Your task to perform on an android device: turn pop-ups off in chrome Image 0: 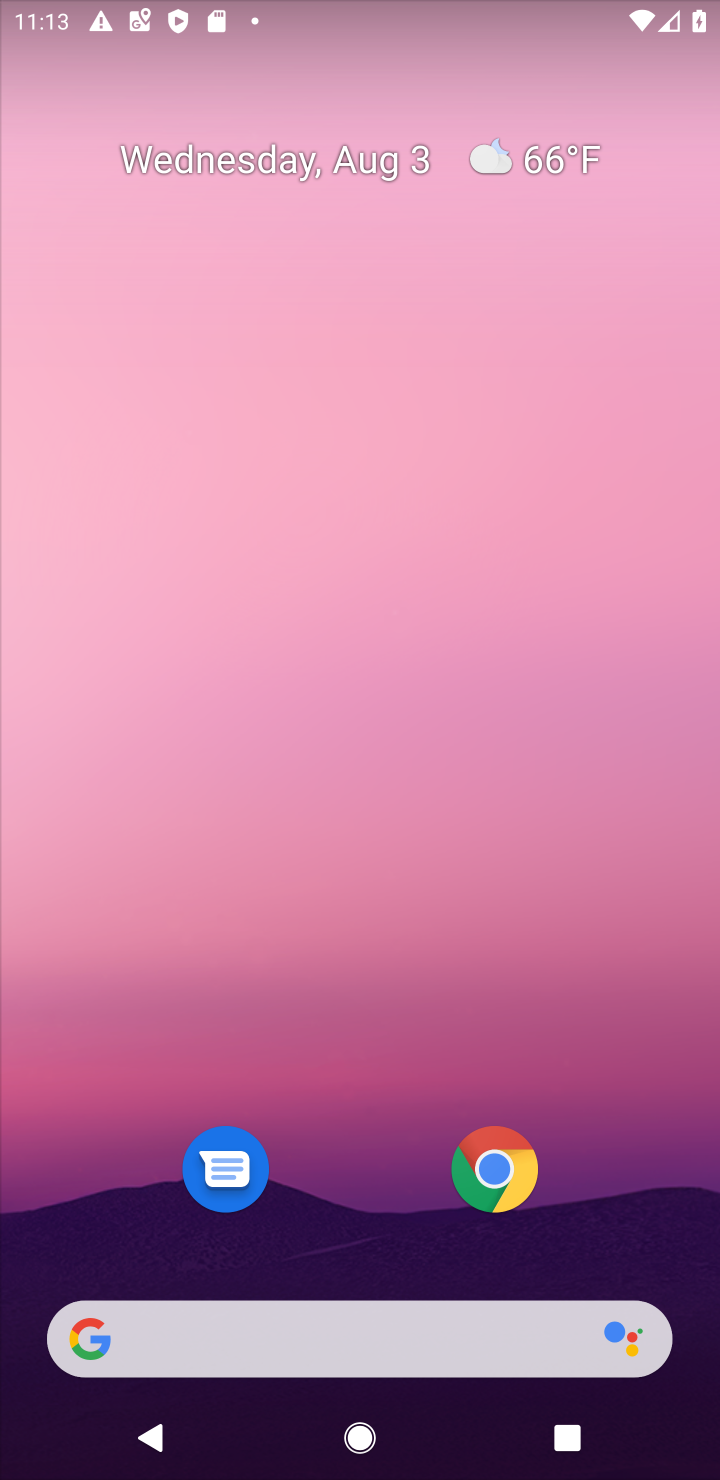
Step 0: click (508, 1188)
Your task to perform on an android device: turn pop-ups off in chrome Image 1: 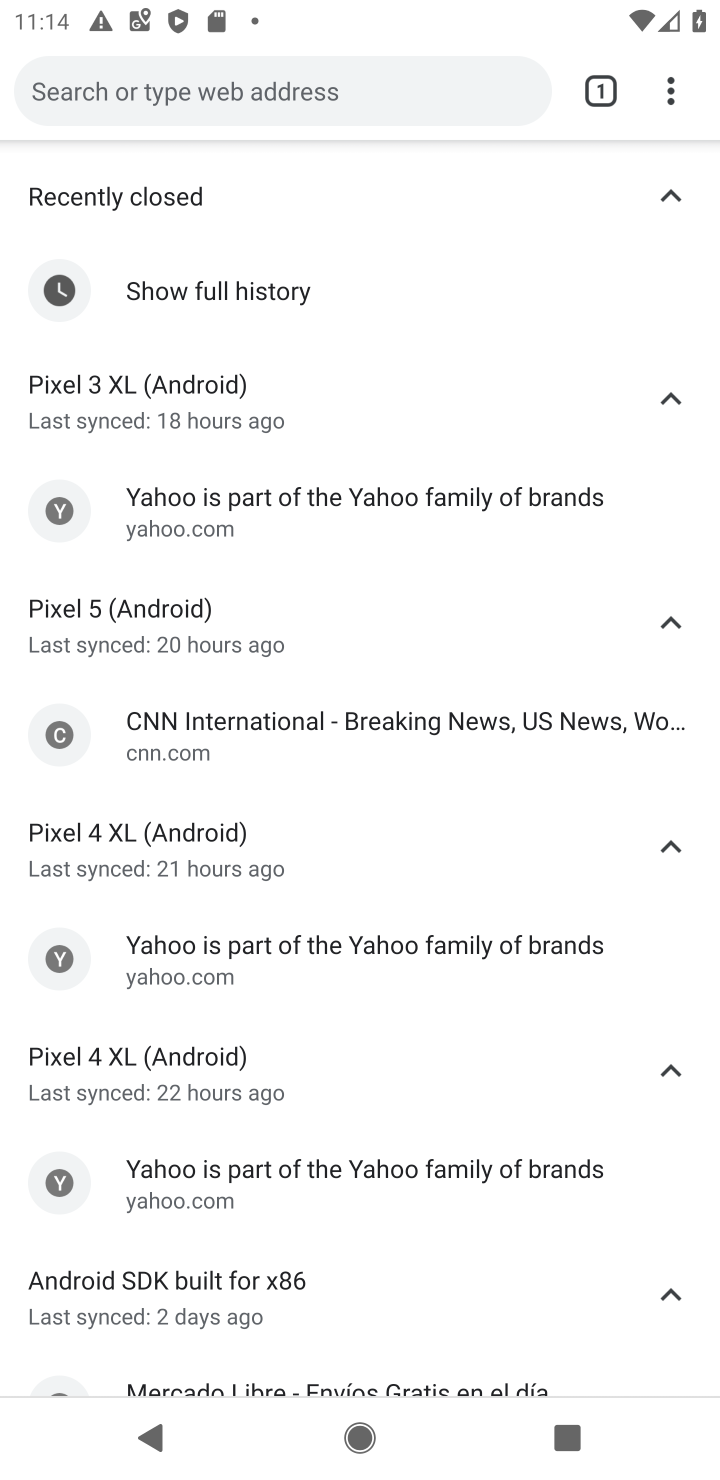
Step 1: drag from (681, 94) to (364, 758)
Your task to perform on an android device: turn pop-ups off in chrome Image 2: 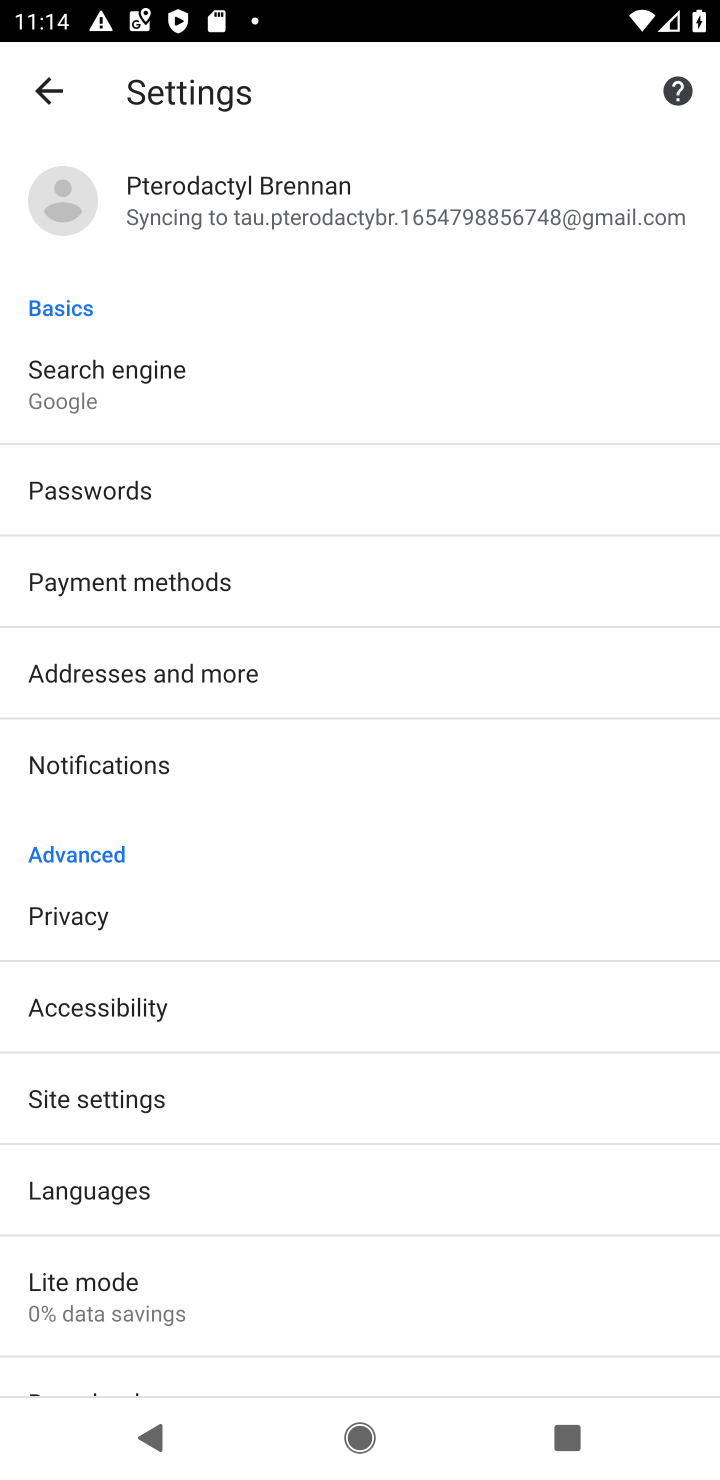
Step 2: click (148, 1100)
Your task to perform on an android device: turn pop-ups off in chrome Image 3: 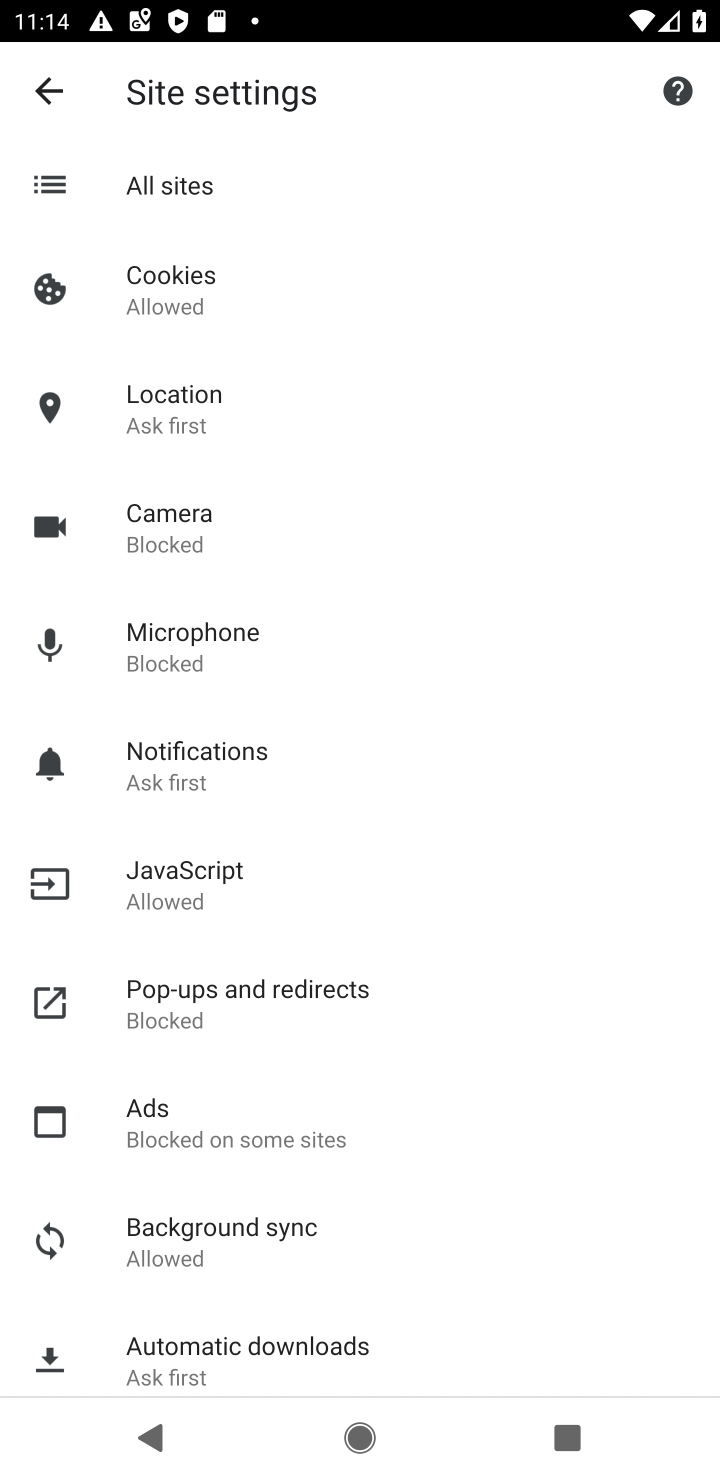
Step 3: click (175, 1011)
Your task to perform on an android device: turn pop-ups off in chrome Image 4: 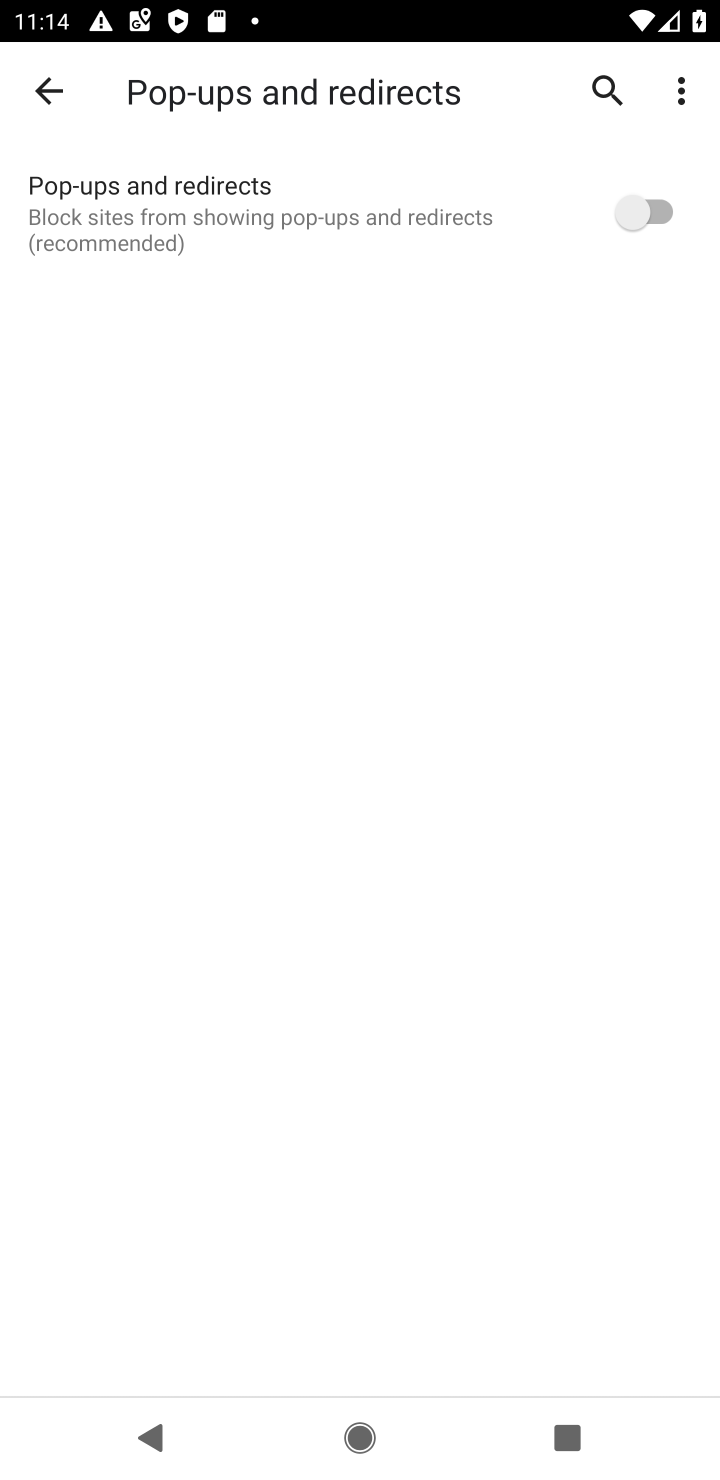
Step 4: task complete